Your task to perform on an android device: turn on showing notifications on the lock screen Image 0: 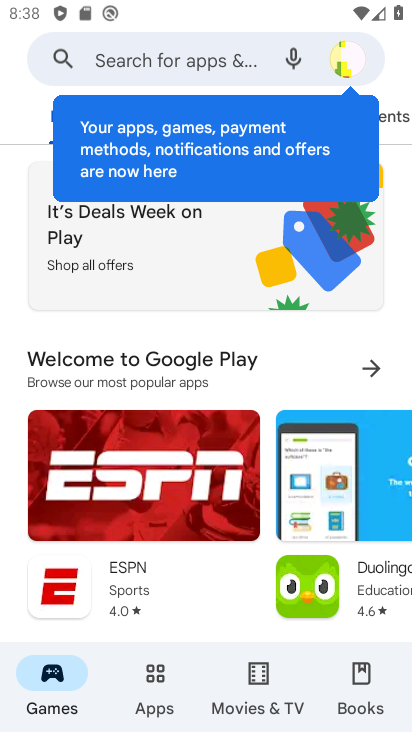
Step 0: press home button
Your task to perform on an android device: turn on showing notifications on the lock screen Image 1: 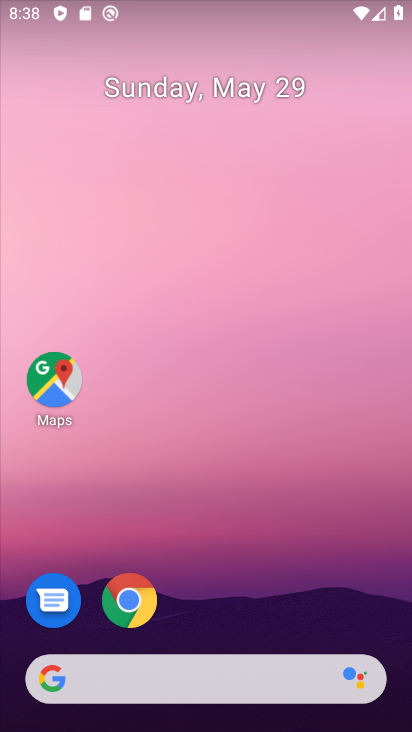
Step 1: drag from (221, 723) to (206, 145)
Your task to perform on an android device: turn on showing notifications on the lock screen Image 2: 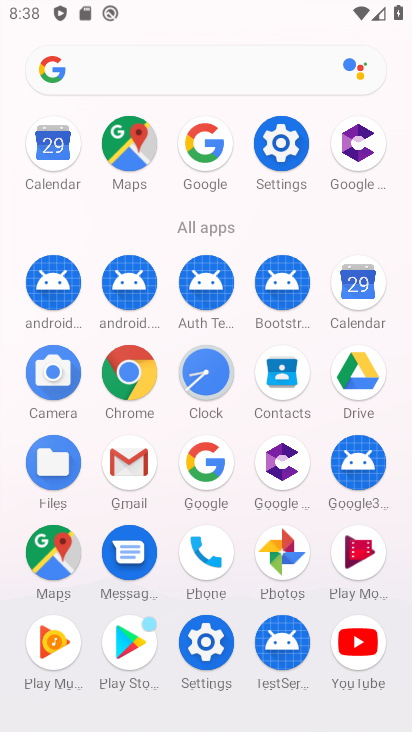
Step 2: click (280, 152)
Your task to perform on an android device: turn on showing notifications on the lock screen Image 3: 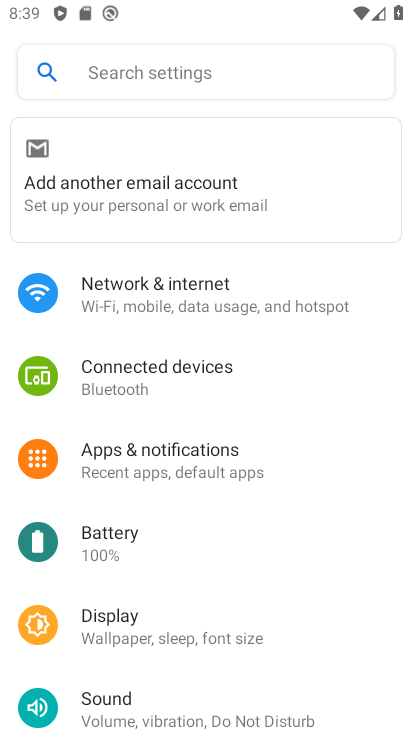
Step 3: click (121, 455)
Your task to perform on an android device: turn on showing notifications on the lock screen Image 4: 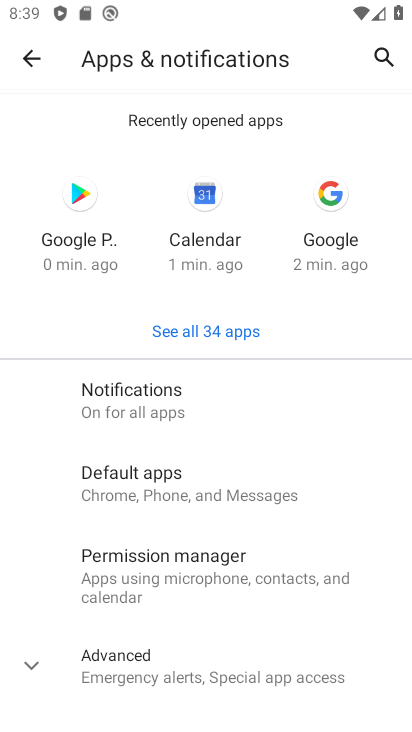
Step 4: click (127, 402)
Your task to perform on an android device: turn on showing notifications on the lock screen Image 5: 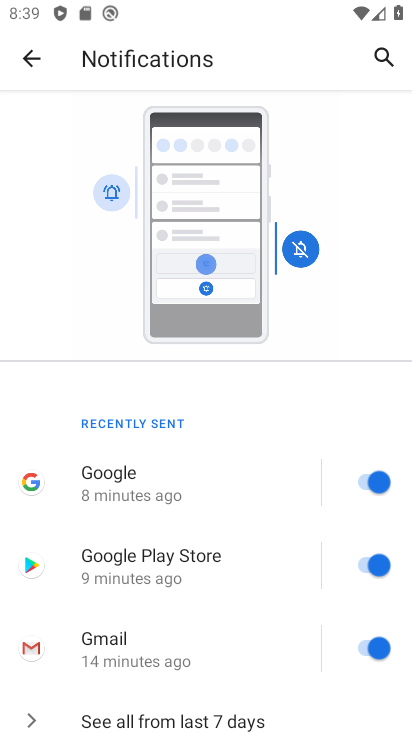
Step 5: drag from (243, 679) to (245, 204)
Your task to perform on an android device: turn on showing notifications on the lock screen Image 6: 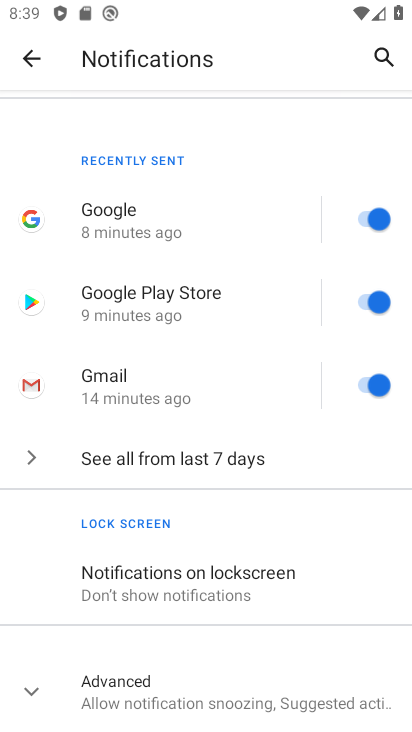
Step 6: click (190, 587)
Your task to perform on an android device: turn on showing notifications on the lock screen Image 7: 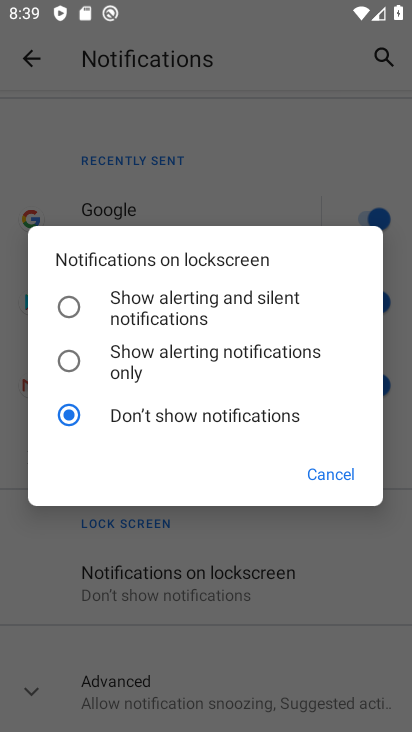
Step 7: click (64, 308)
Your task to perform on an android device: turn on showing notifications on the lock screen Image 8: 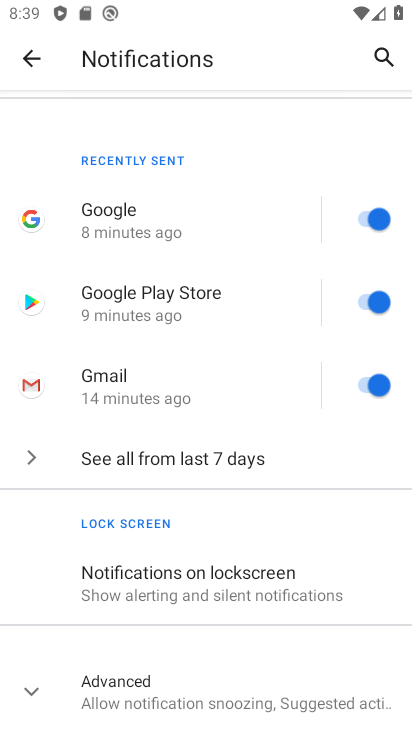
Step 8: task complete